Your task to perform on an android device: open app "Facebook Lite" (install if not already installed), go to login, and select forgot password Image 0: 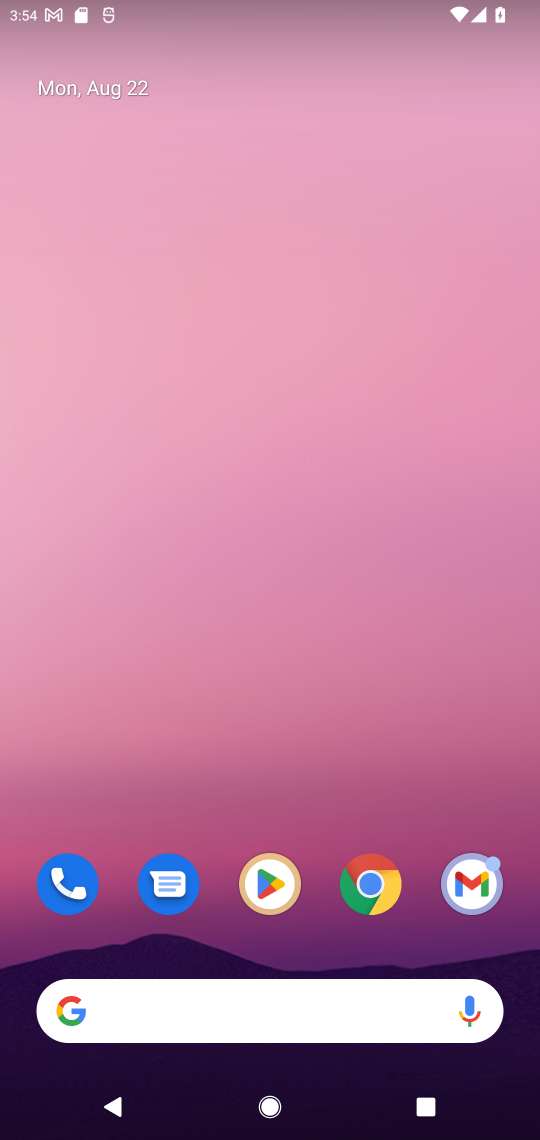
Step 0: click (280, 897)
Your task to perform on an android device: open app "Facebook Lite" (install if not already installed), go to login, and select forgot password Image 1: 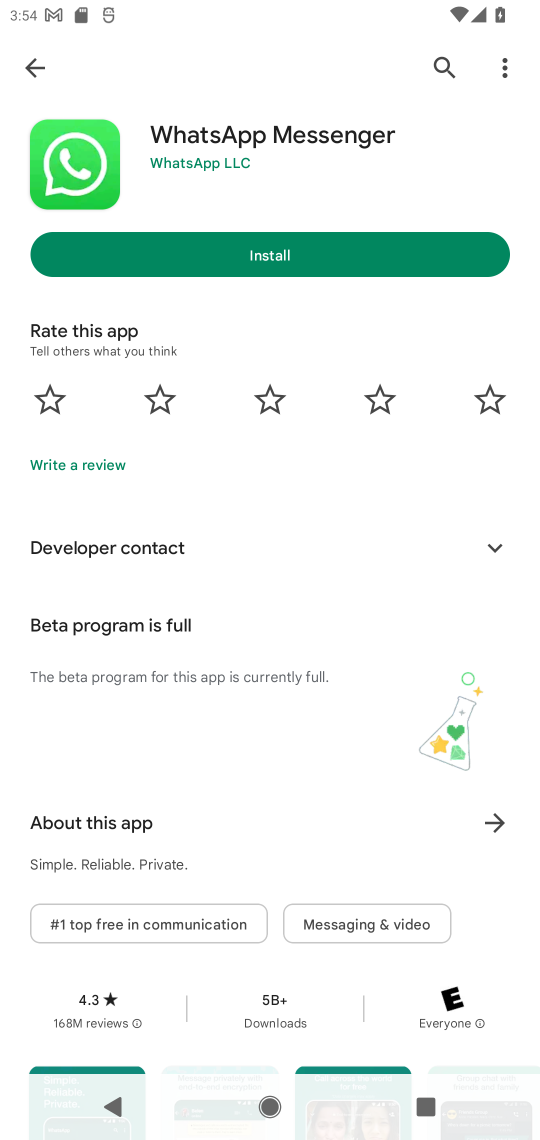
Step 1: click (43, 53)
Your task to perform on an android device: open app "Facebook Lite" (install if not already installed), go to login, and select forgot password Image 2: 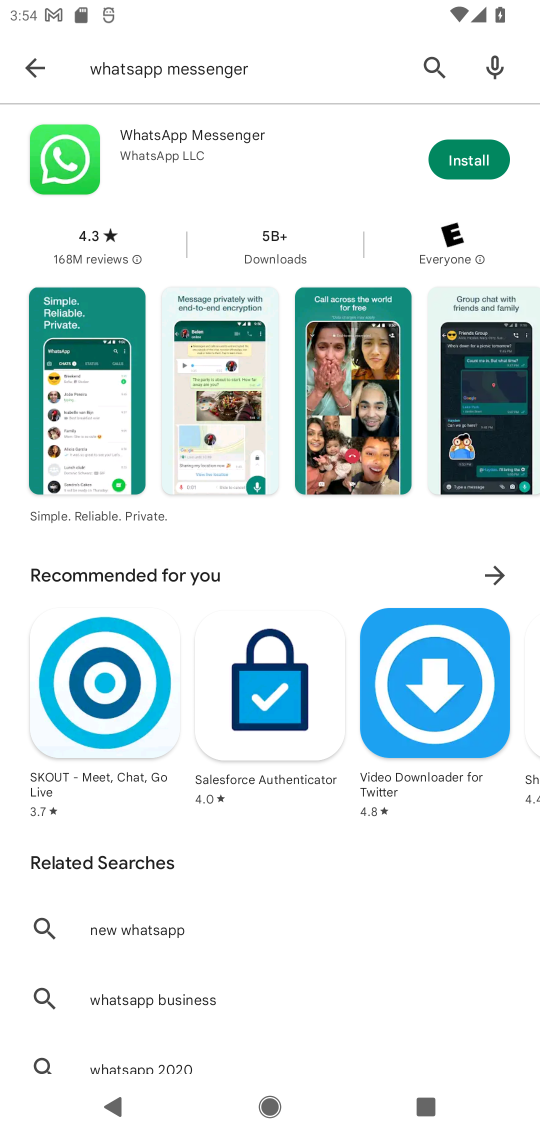
Step 2: click (233, 75)
Your task to perform on an android device: open app "Facebook Lite" (install if not already installed), go to login, and select forgot password Image 3: 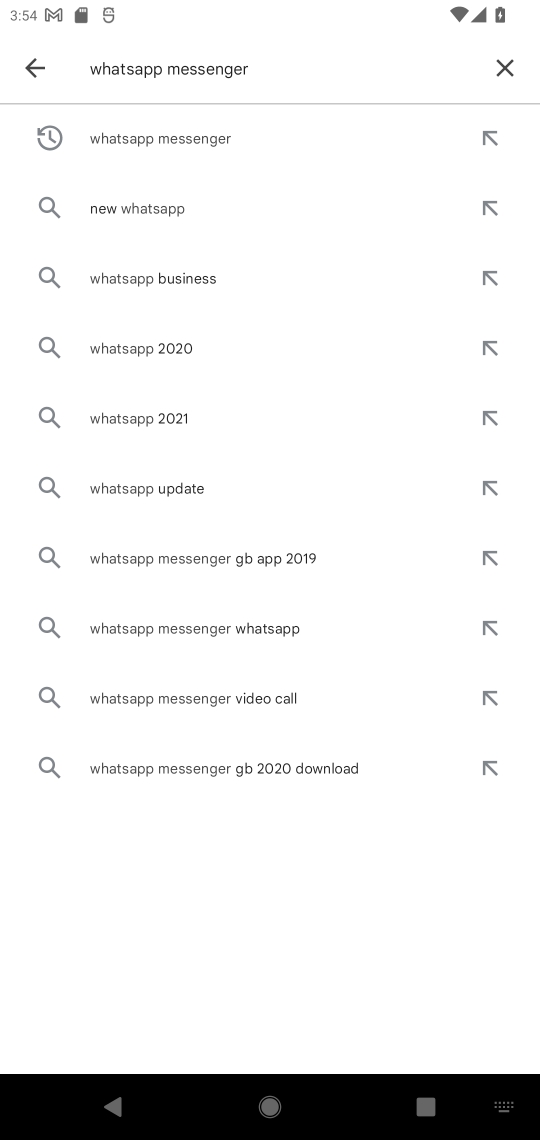
Step 3: click (502, 61)
Your task to perform on an android device: open app "Facebook Lite" (install if not already installed), go to login, and select forgot password Image 4: 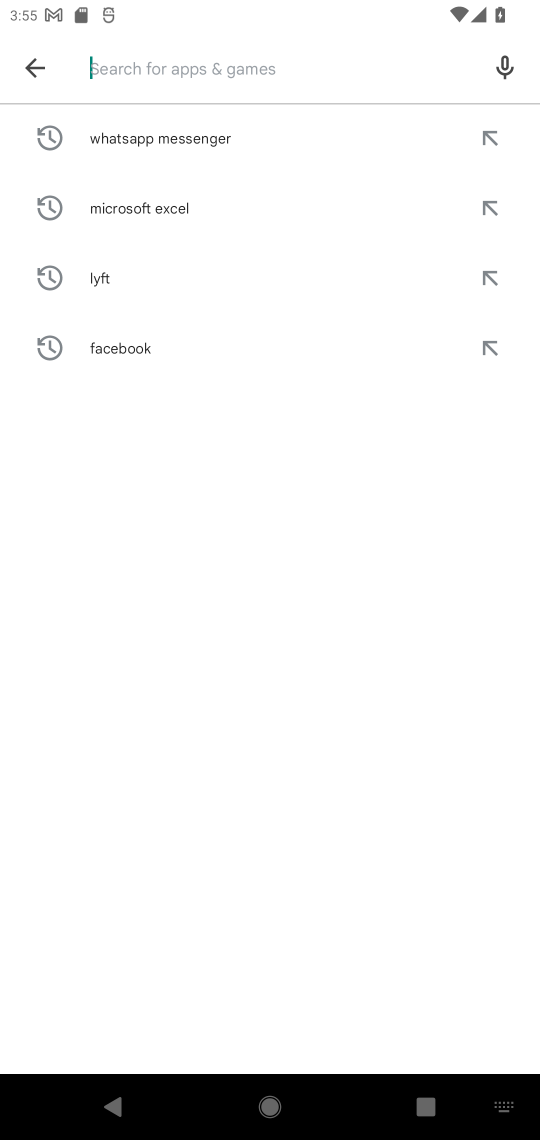
Step 4: type "facebook Lite"
Your task to perform on an android device: open app "Facebook Lite" (install if not already installed), go to login, and select forgot password Image 5: 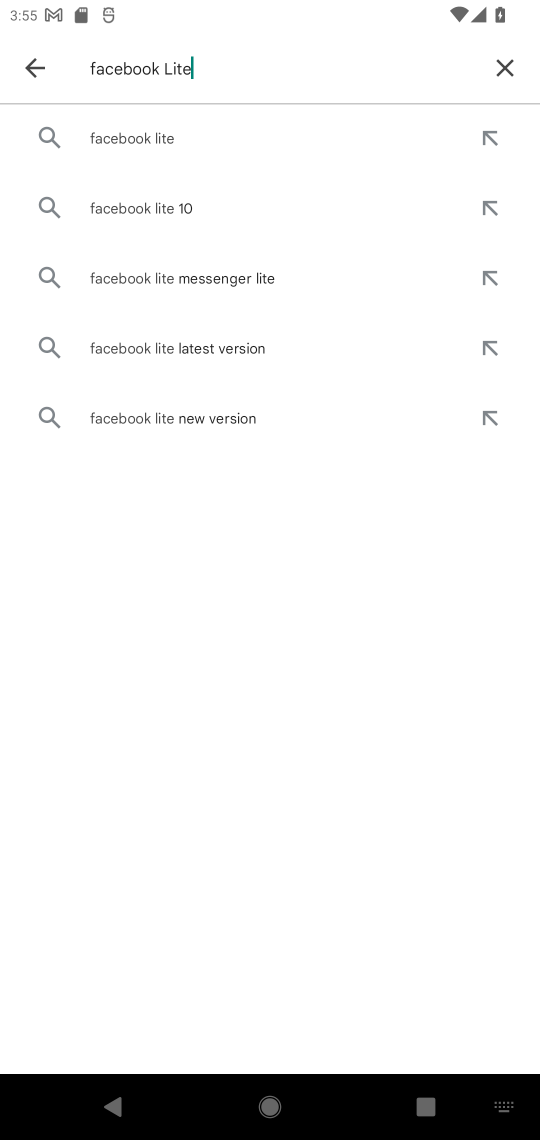
Step 5: click (137, 136)
Your task to perform on an android device: open app "Facebook Lite" (install if not already installed), go to login, and select forgot password Image 6: 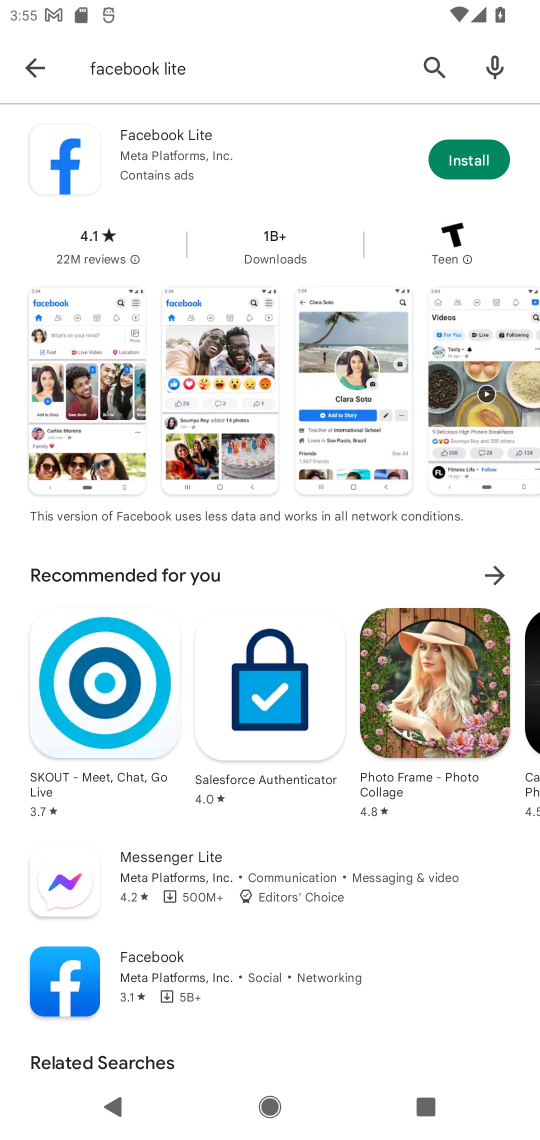
Step 6: click (468, 172)
Your task to perform on an android device: open app "Facebook Lite" (install if not already installed), go to login, and select forgot password Image 7: 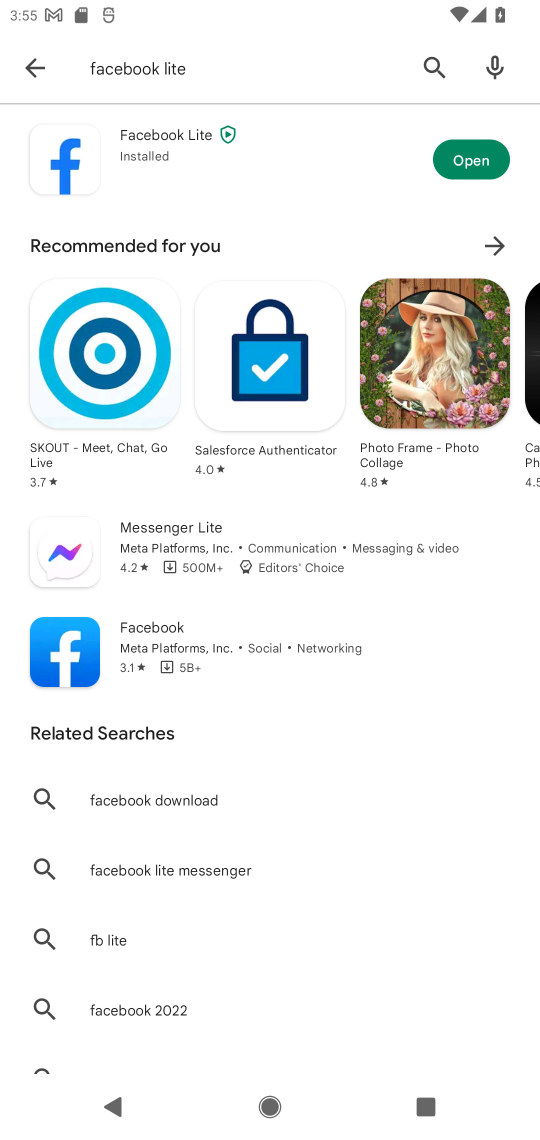
Step 7: click (451, 149)
Your task to perform on an android device: open app "Facebook Lite" (install if not already installed), go to login, and select forgot password Image 8: 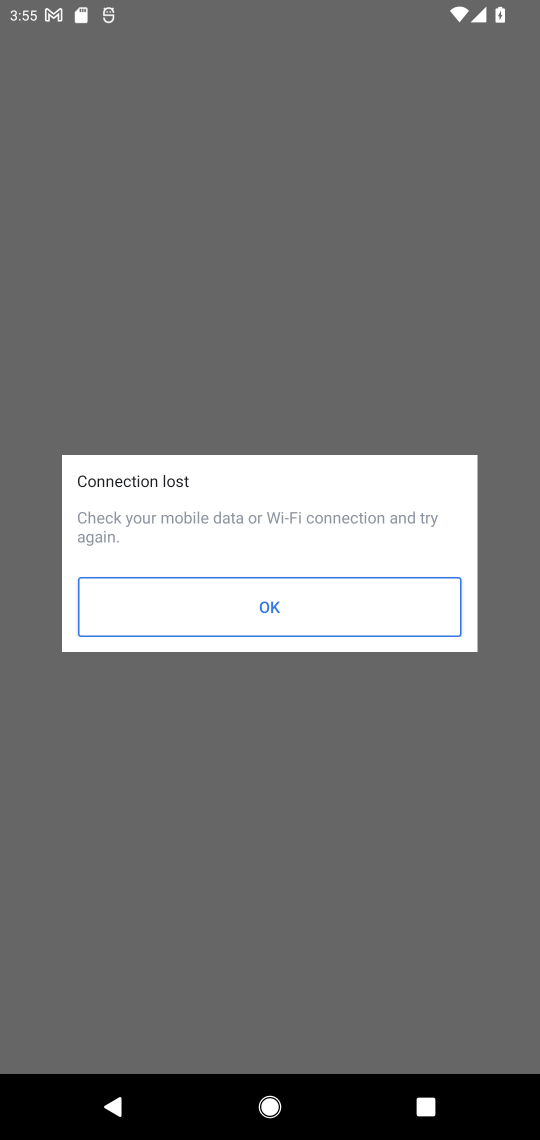
Step 8: click (291, 620)
Your task to perform on an android device: open app "Facebook Lite" (install if not already installed), go to login, and select forgot password Image 9: 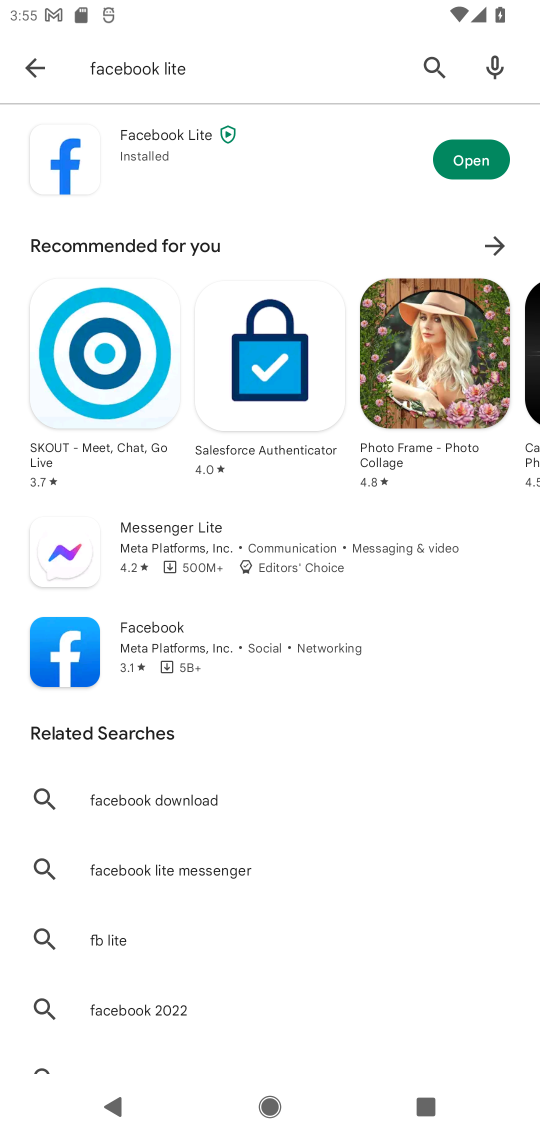
Step 9: click (466, 161)
Your task to perform on an android device: open app "Facebook Lite" (install if not already installed), go to login, and select forgot password Image 10: 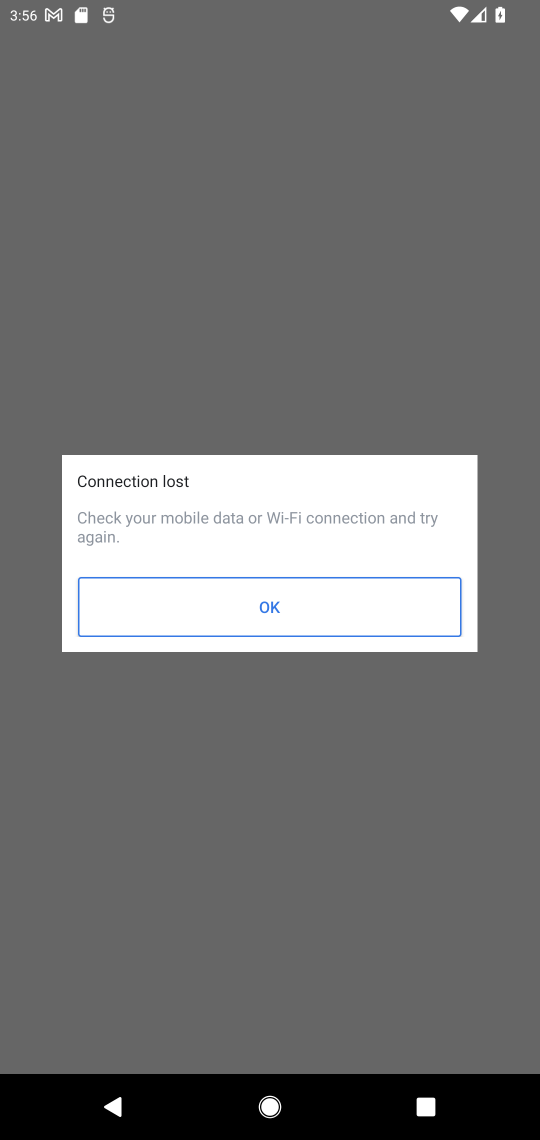
Step 10: click (355, 577)
Your task to perform on an android device: open app "Facebook Lite" (install if not already installed), go to login, and select forgot password Image 11: 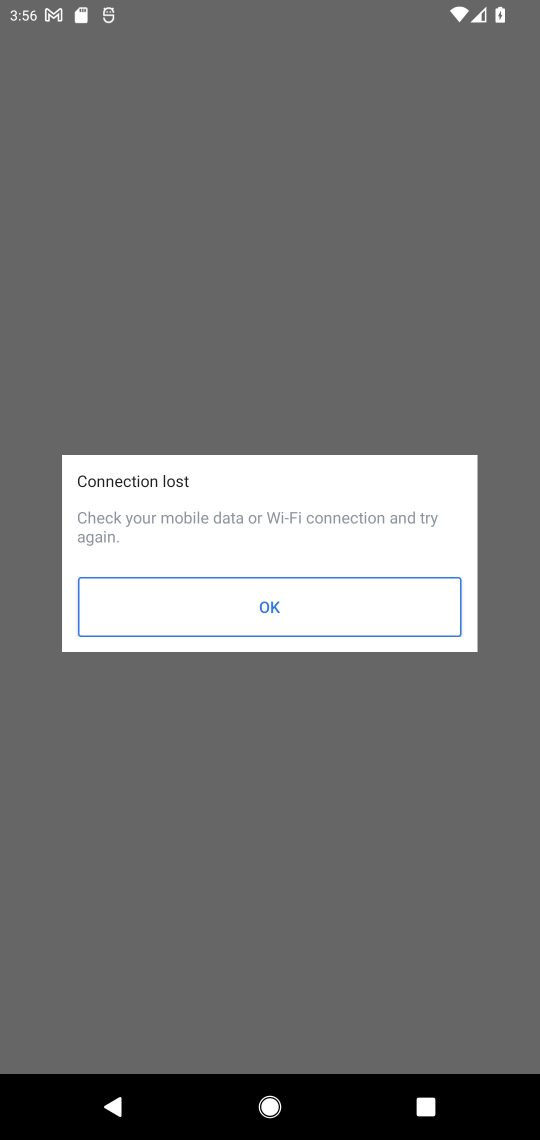
Step 11: task complete